Your task to perform on an android device: Go to internet settings Image 0: 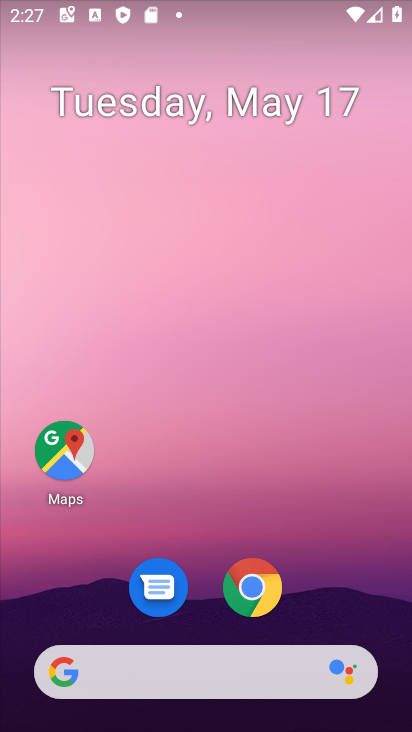
Step 0: drag from (206, 619) to (253, 130)
Your task to perform on an android device: Go to internet settings Image 1: 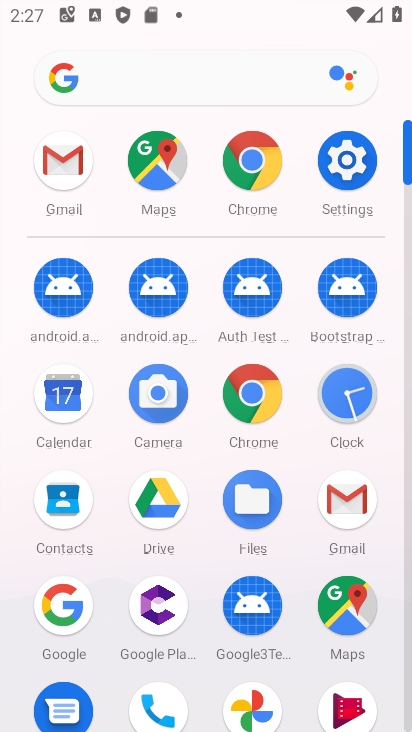
Step 1: click (342, 153)
Your task to perform on an android device: Go to internet settings Image 2: 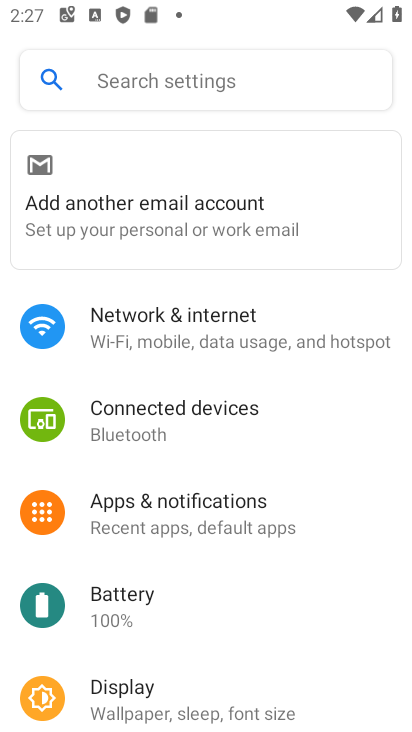
Step 2: click (182, 329)
Your task to perform on an android device: Go to internet settings Image 3: 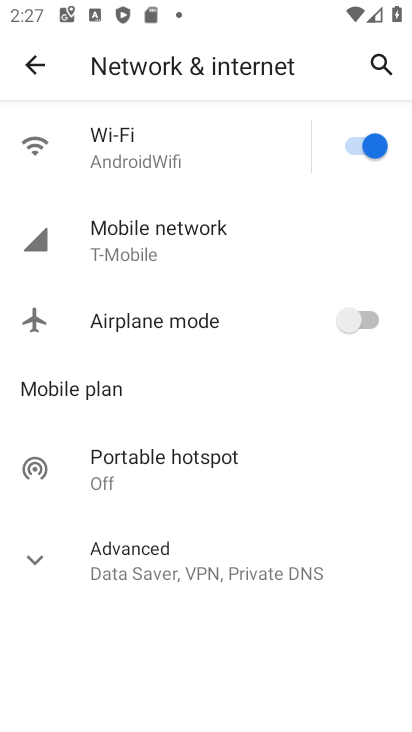
Step 3: task complete